Your task to perform on an android device: Turn on the flashlight Image 0: 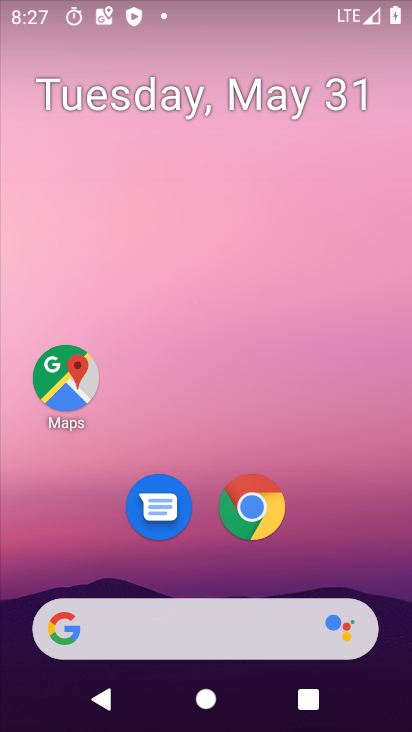
Step 0: drag from (9, 697) to (251, 163)
Your task to perform on an android device: Turn on the flashlight Image 1: 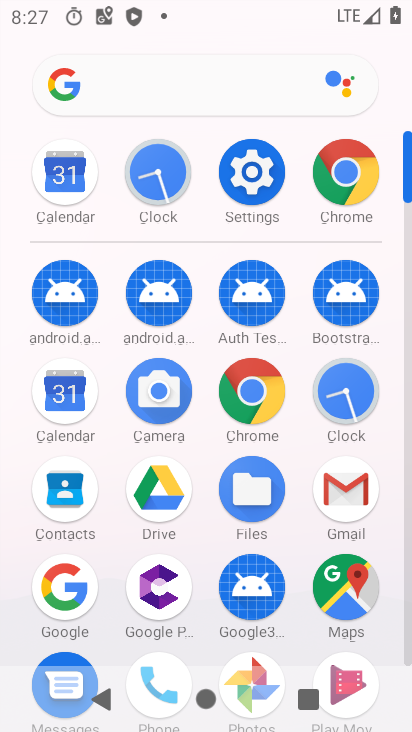
Step 1: click (244, 174)
Your task to perform on an android device: Turn on the flashlight Image 2: 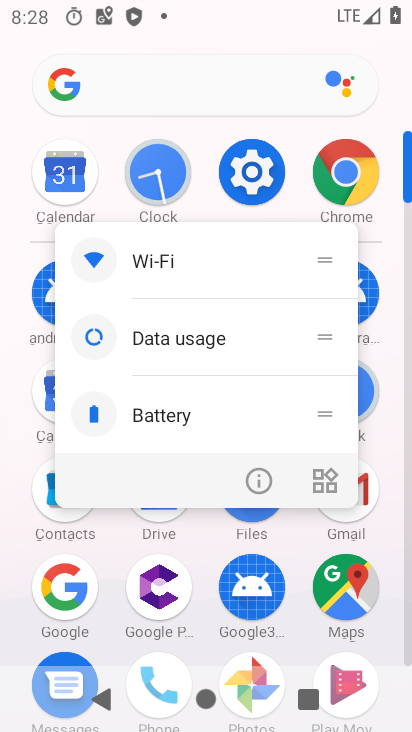
Step 2: click (248, 167)
Your task to perform on an android device: Turn on the flashlight Image 3: 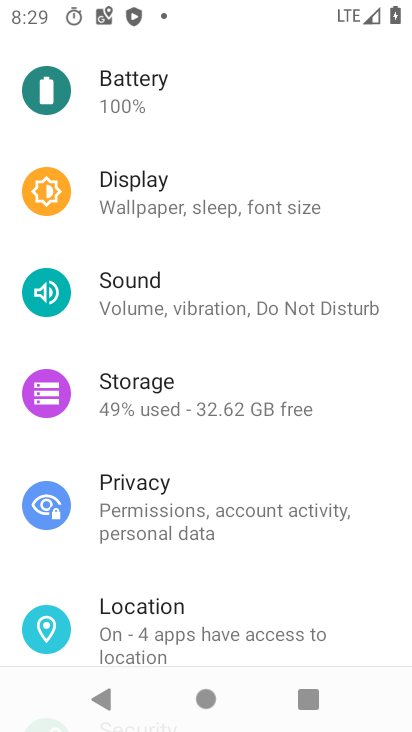
Step 3: task complete